Your task to perform on an android device: turn on data saver in the chrome app Image 0: 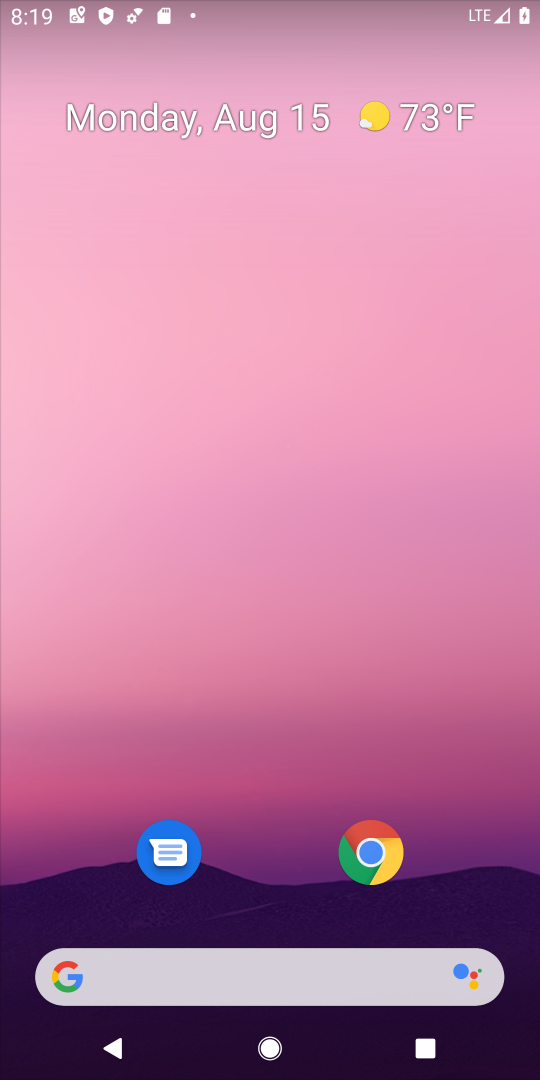
Step 0: click (373, 856)
Your task to perform on an android device: turn on data saver in the chrome app Image 1: 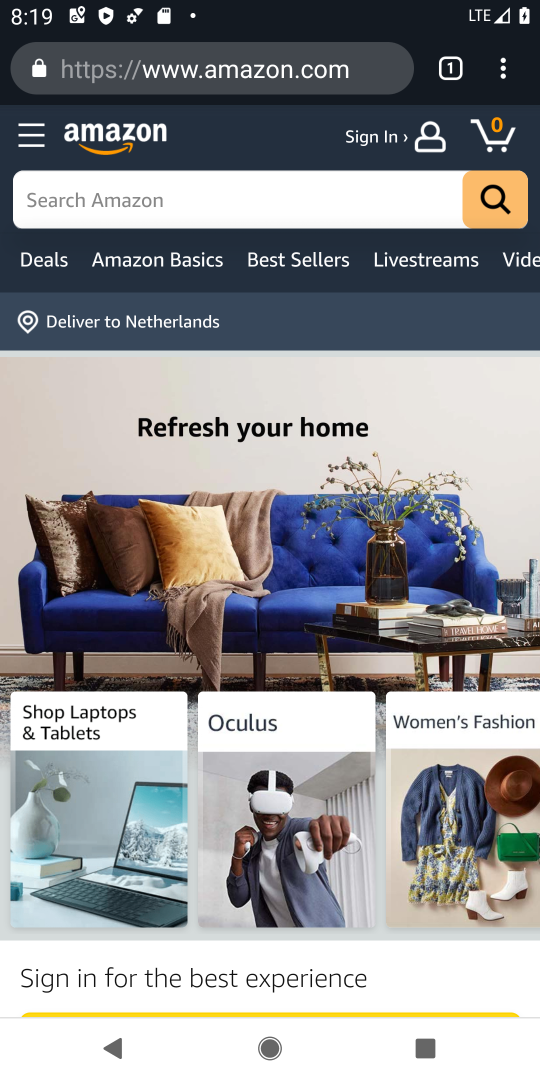
Step 1: click (513, 72)
Your task to perform on an android device: turn on data saver in the chrome app Image 2: 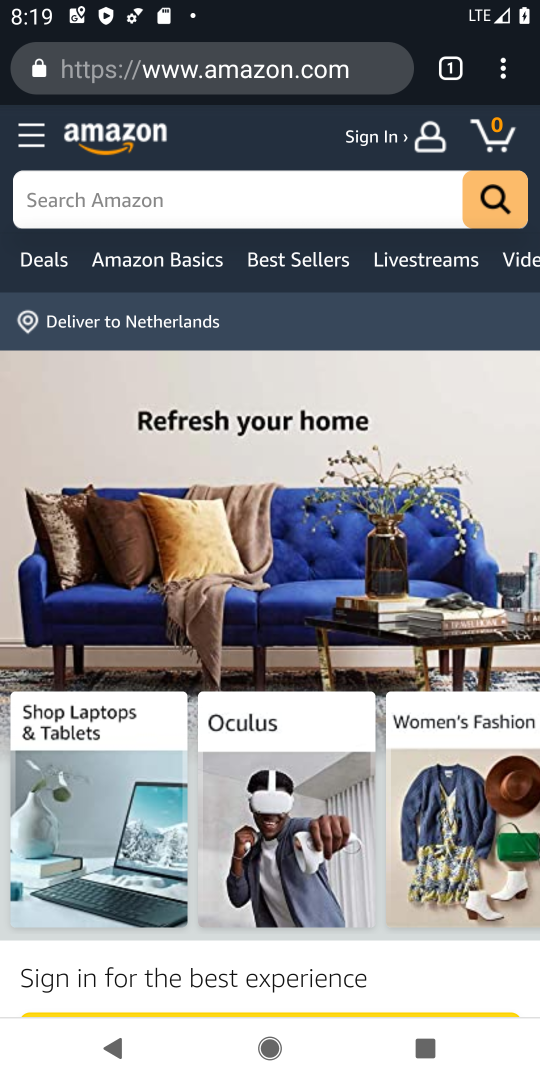
Step 2: drag from (513, 72) to (299, 905)
Your task to perform on an android device: turn on data saver in the chrome app Image 3: 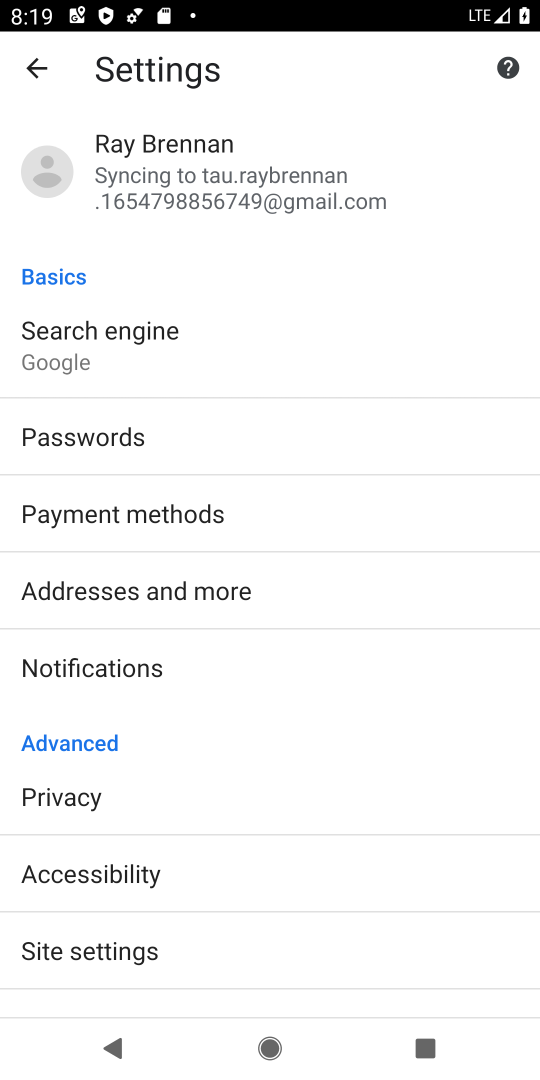
Step 3: drag from (186, 855) to (256, 703)
Your task to perform on an android device: turn on data saver in the chrome app Image 4: 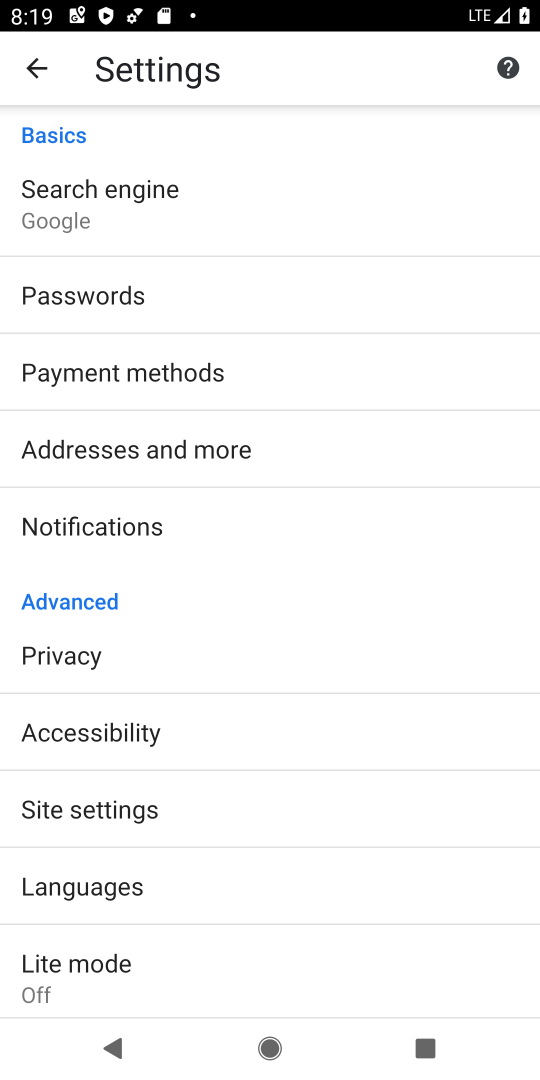
Step 4: drag from (211, 869) to (339, 705)
Your task to perform on an android device: turn on data saver in the chrome app Image 5: 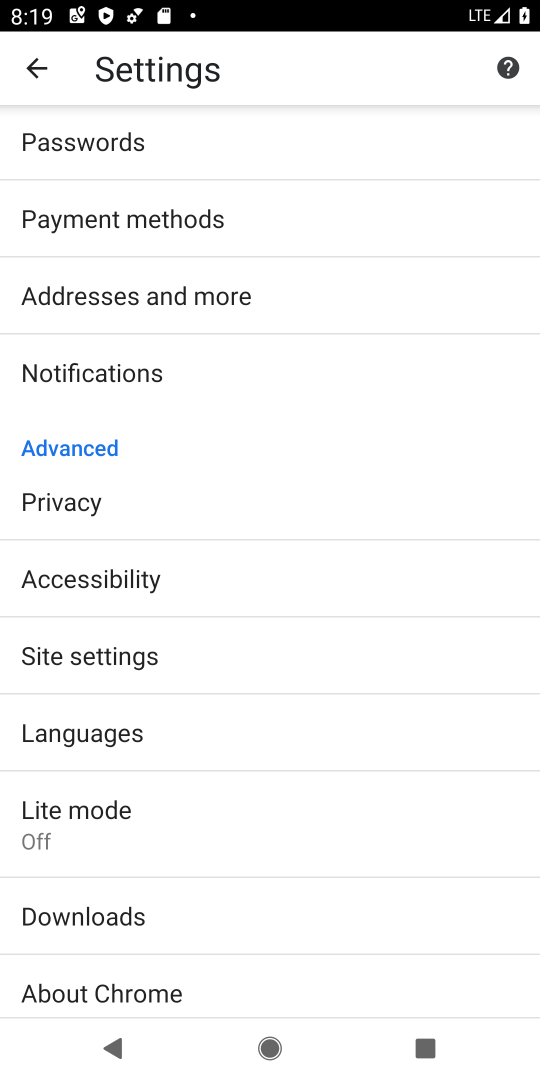
Step 5: click (127, 830)
Your task to perform on an android device: turn on data saver in the chrome app Image 6: 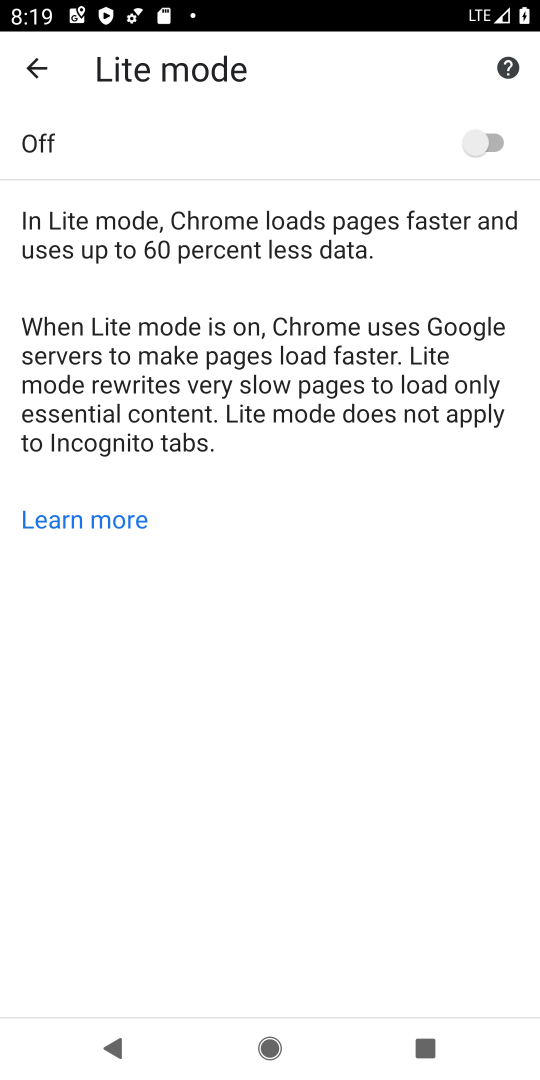
Step 6: click (486, 141)
Your task to perform on an android device: turn on data saver in the chrome app Image 7: 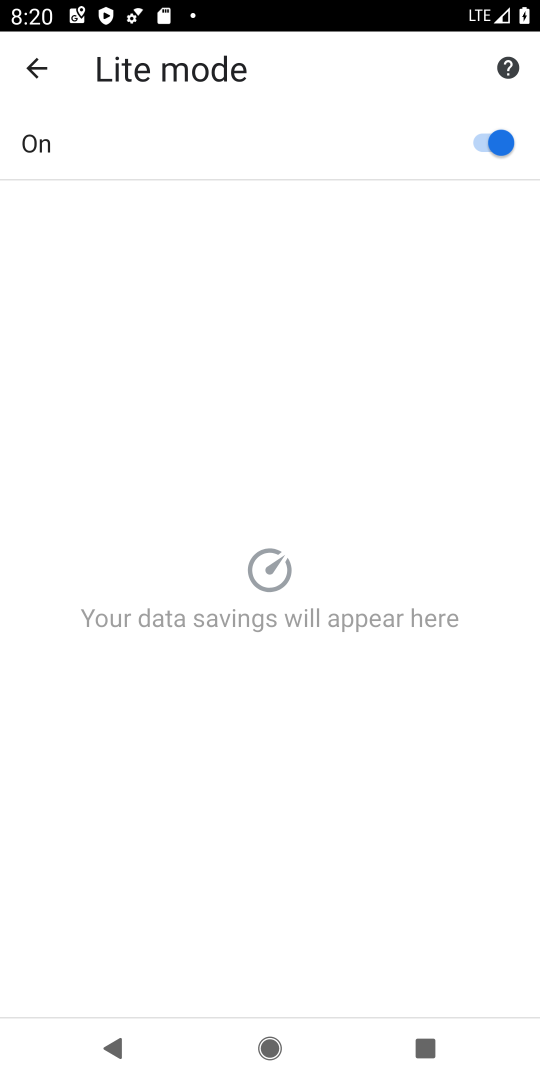
Step 7: task complete